Your task to perform on an android device: change notification settings in the gmail app Image 0: 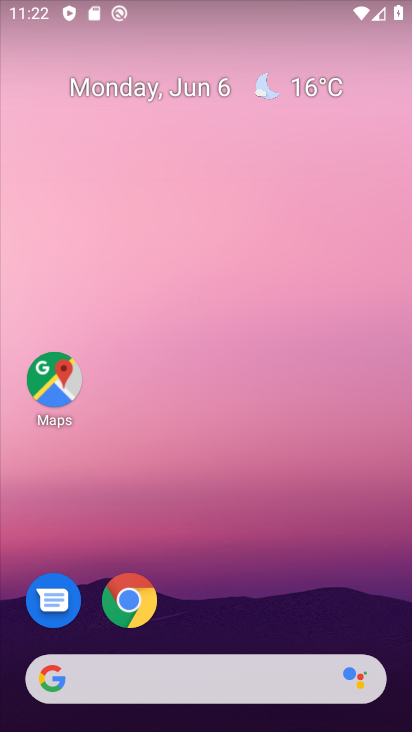
Step 0: drag from (247, 713) to (237, 173)
Your task to perform on an android device: change notification settings in the gmail app Image 1: 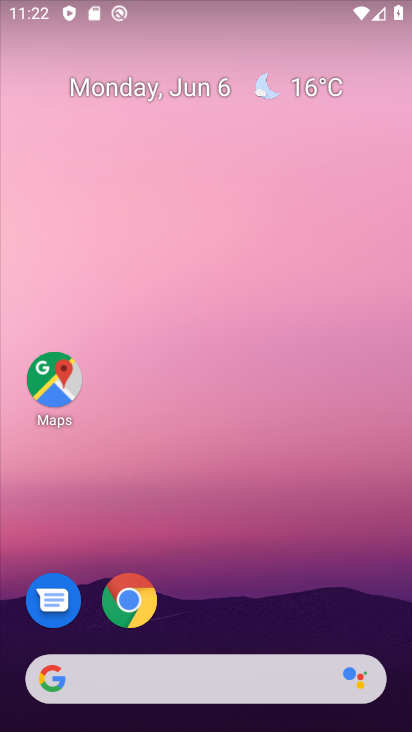
Step 1: drag from (207, 693) to (158, 100)
Your task to perform on an android device: change notification settings in the gmail app Image 2: 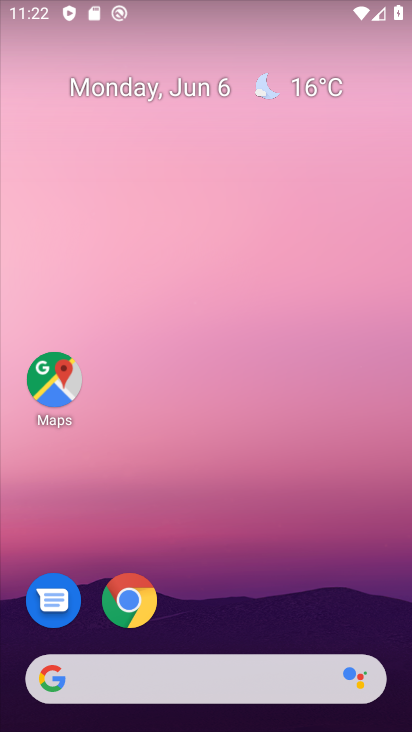
Step 2: drag from (231, 674) to (229, 23)
Your task to perform on an android device: change notification settings in the gmail app Image 3: 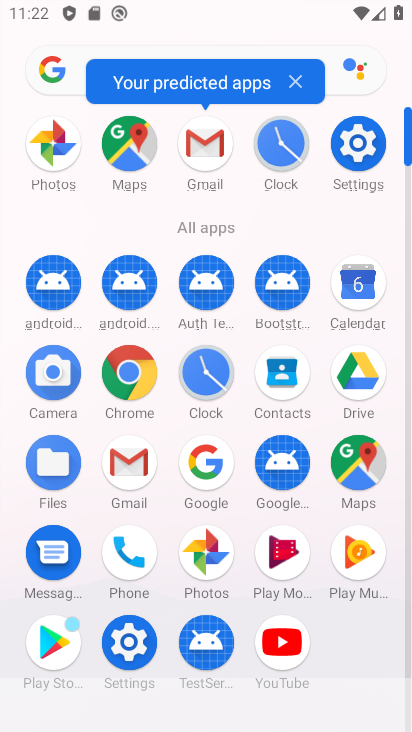
Step 3: click (122, 462)
Your task to perform on an android device: change notification settings in the gmail app Image 4: 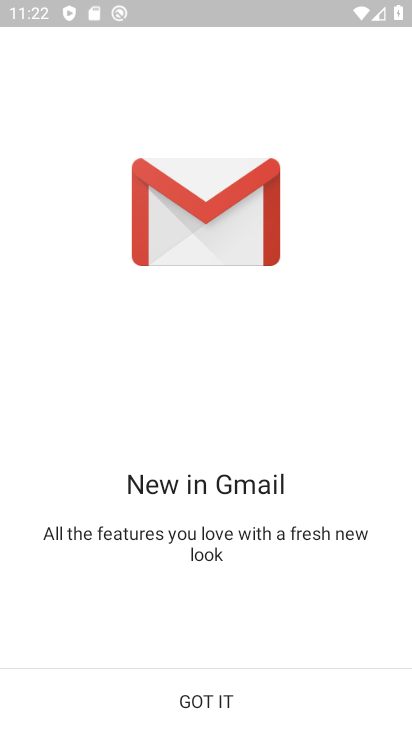
Step 4: click (193, 698)
Your task to perform on an android device: change notification settings in the gmail app Image 5: 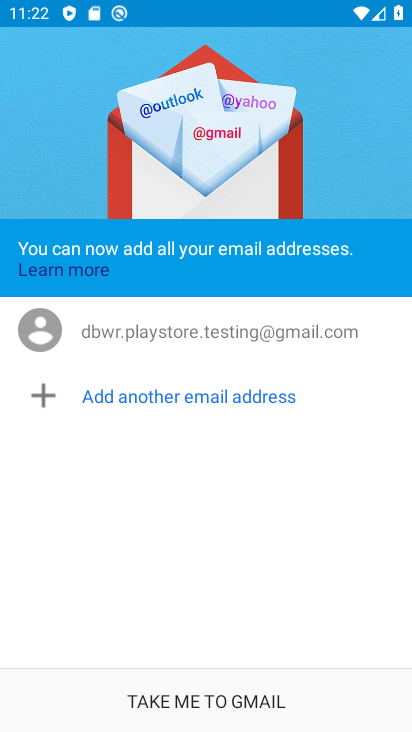
Step 5: click (193, 698)
Your task to perform on an android device: change notification settings in the gmail app Image 6: 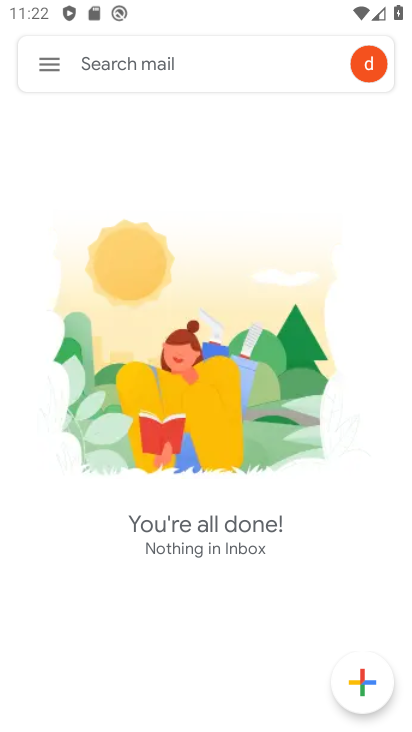
Step 6: click (48, 61)
Your task to perform on an android device: change notification settings in the gmail app Image 7: 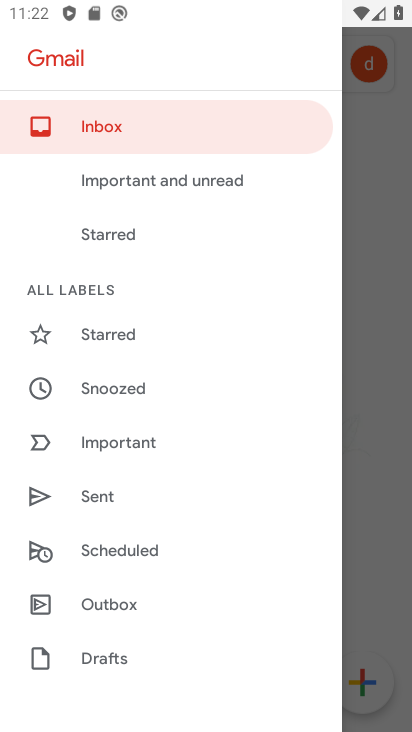
Step 7: drag from (112, 670) to (122, 237)
Your task to perform on an android device: change notification settings in the gmail app Image 8: 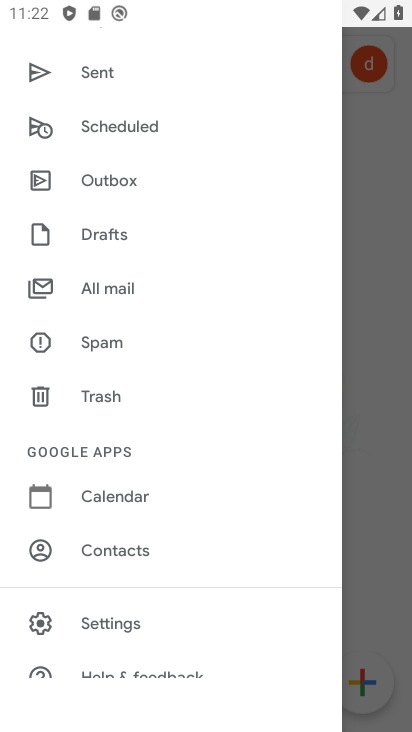
Step 8: click (112, 617)
Your task to perform on an android device: change notification settings in the gmail app Image 9: 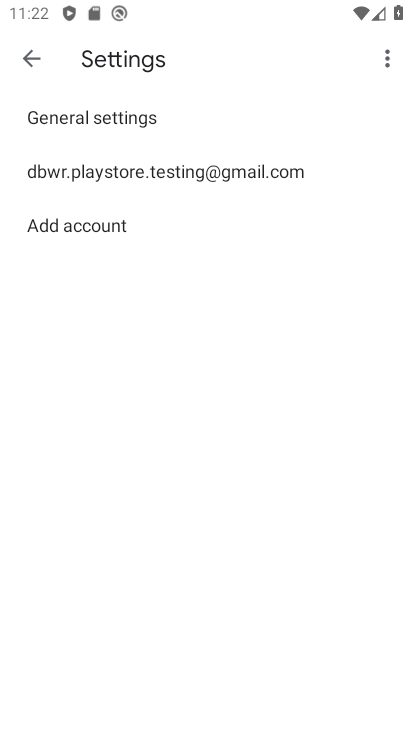
Step 9: click (169, 177)
Your task to perform on an android device: change notification settings in the gmail app Image 10: 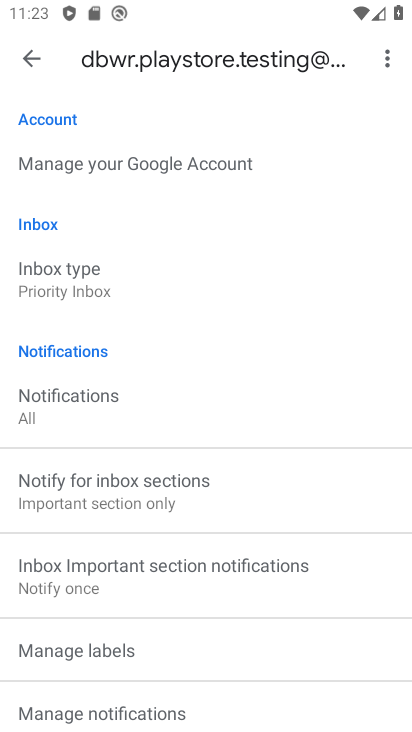
Step 10: click (61, 390)
Your task to perform on an android device: change notification settings in the gmail app Image 11: 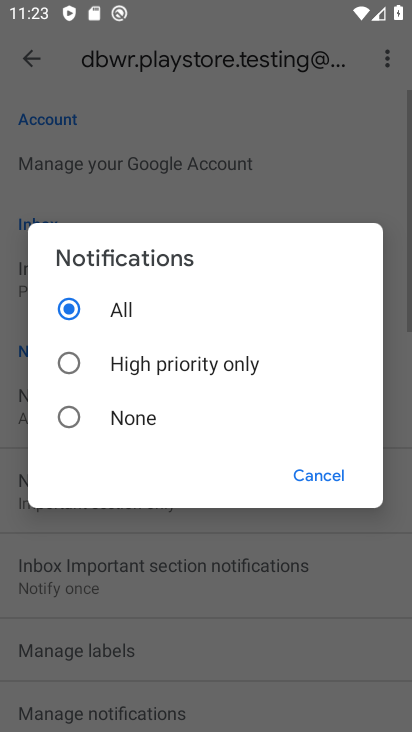
Step 11: click (68, 369)
Your task to perform on an android device: change notification settings in the gmail app Image 12: 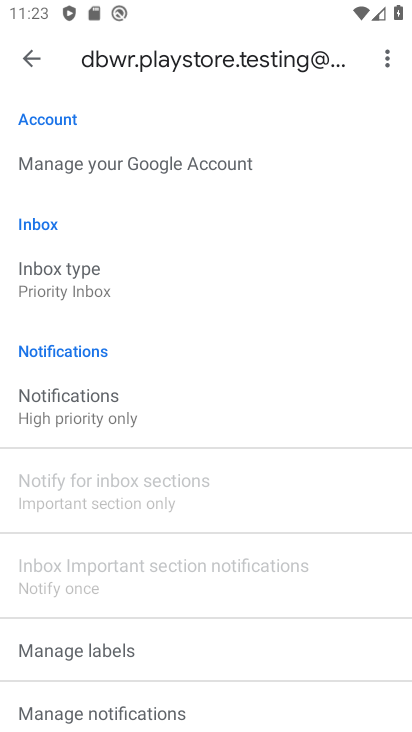
Step 12: task complete